Your task to perform on an android device: turn notification dots on Image 0: 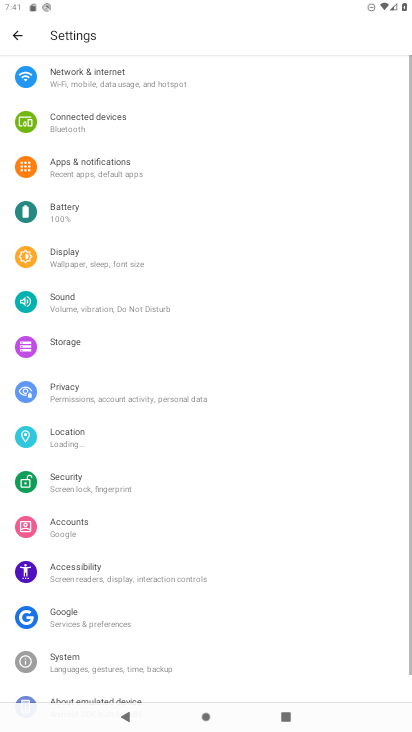
Step 0: drag from (349, 648) to (138, 161)
Your task to perform on an android device: turn notification dots on Image 1: 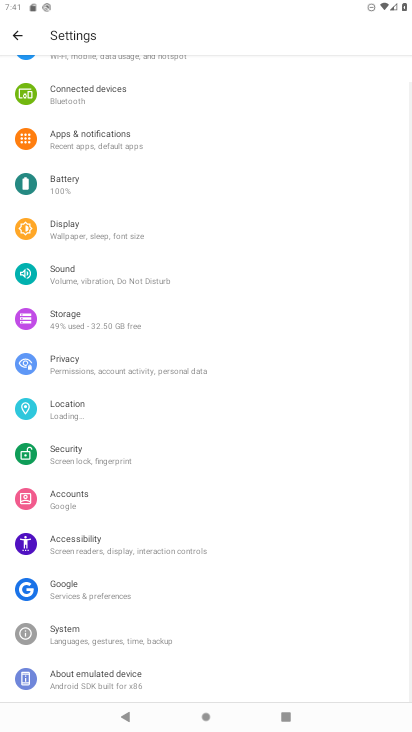
Step 1: press home button
Your task to perform on an android device: turn notification dots on Image 2: 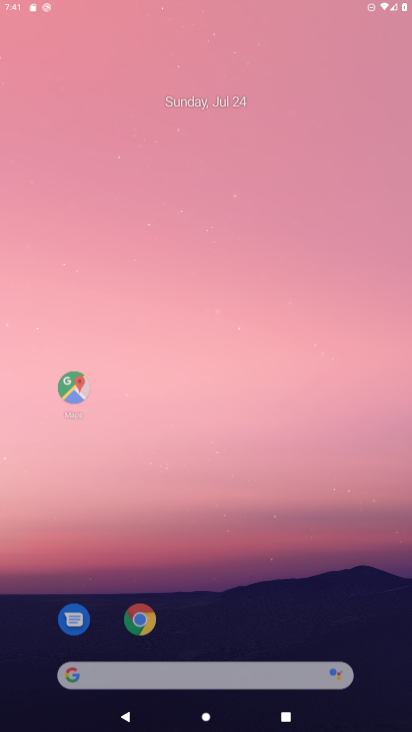
Step 2: drag from (360, 684) to (179, 77)
Your task to perform on an android device: turn notification dots on Image 3: 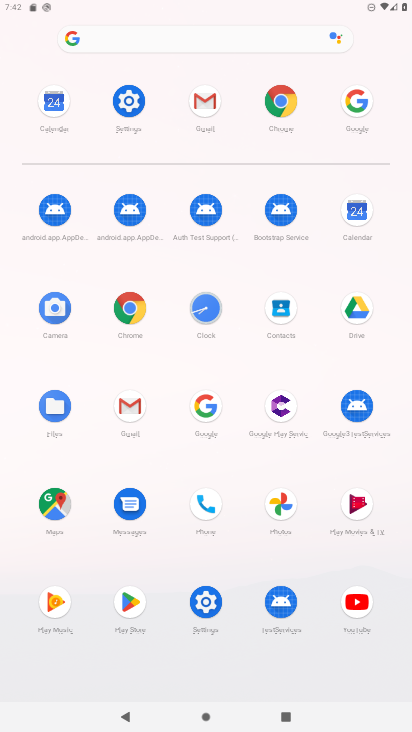
Step 3: click (212, 600)
Your task to perform on an android device: turn notification dots on Image 4: 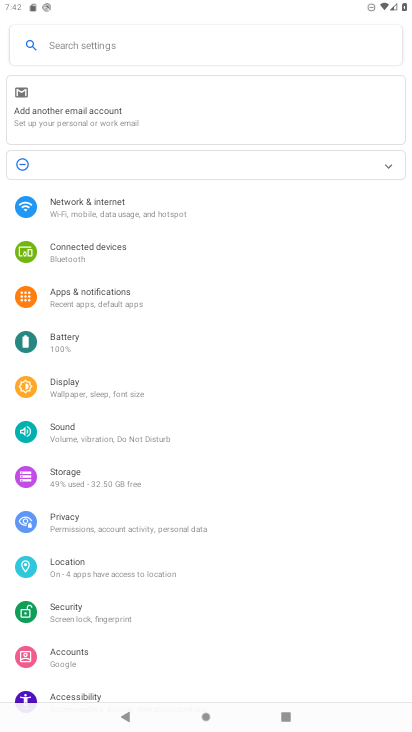
Step 4: click (119, 300)
Your task to perform on an android device: turn notification dots on Image 5: 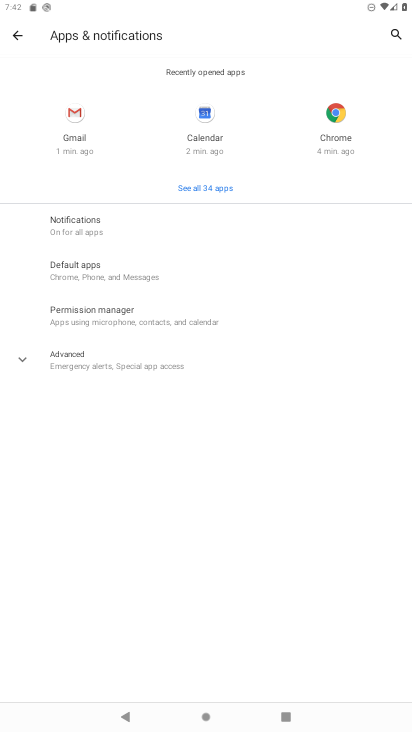
Step 5: click (71, 230)
Your task to perform on an android device: turn notification dots on Image 6: 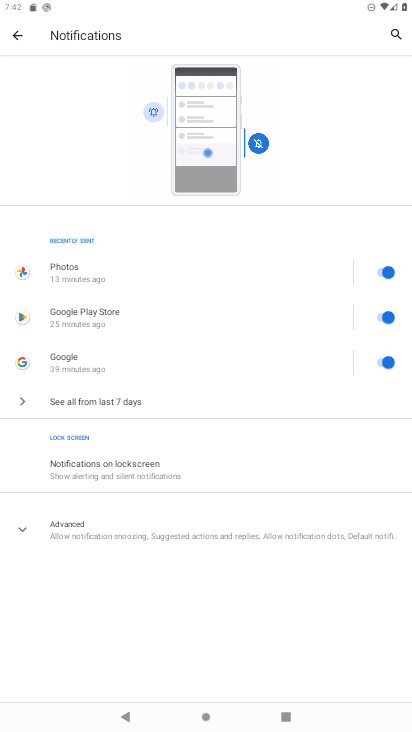
Step 6: click (78, 530)
Your task to perform on an android device: turn notification dots on Image 7: 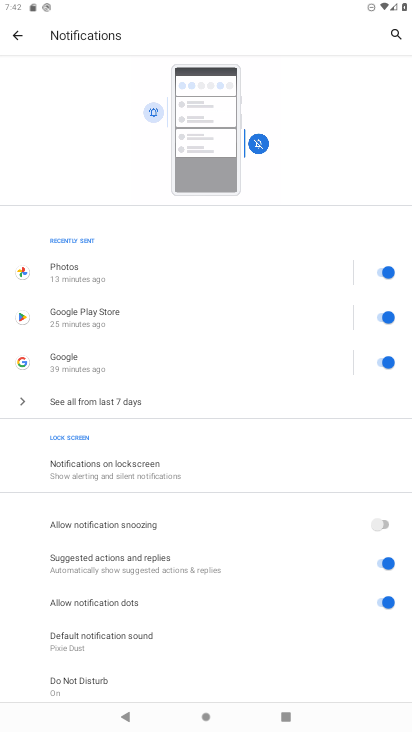
Step 7: task complete